Your task to perform on an android device: turn on showing notifications on the lock screen Image 0: 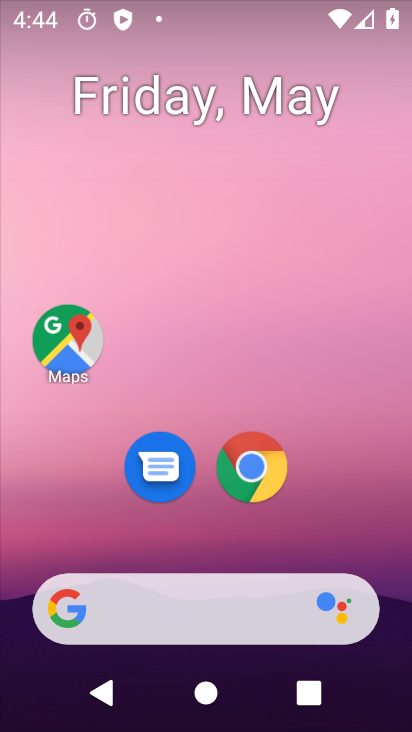
Step 0: drag from (361, 491) to (285, 14)
Your task to perform on an android device: turn on showing notifications on the lock screen Image 1: 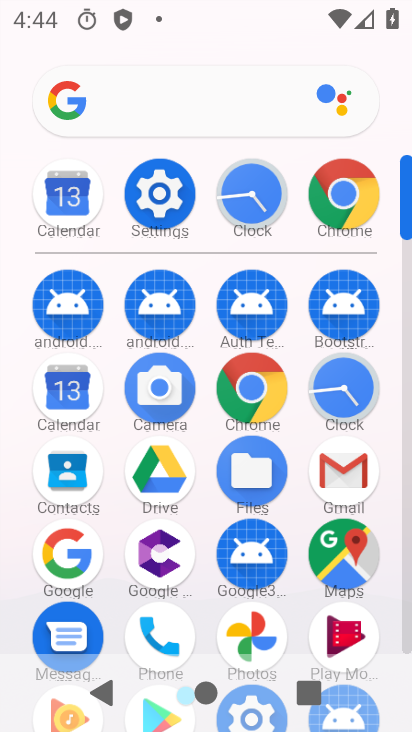
Step 1: click (168, 202)
Your task to perform on an android device: turn on showing notifications on the lock screen Image 2: 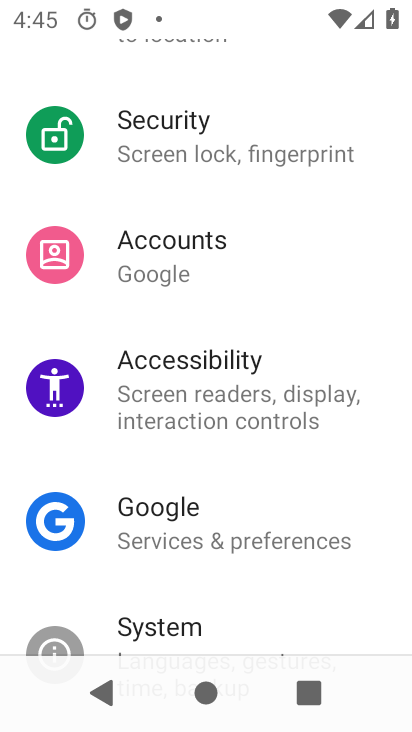
Step 2: drag from (310, 520) to (269, 597)
Your task to perform on an android device: turn on showing notifications on the lock screen Image 3: 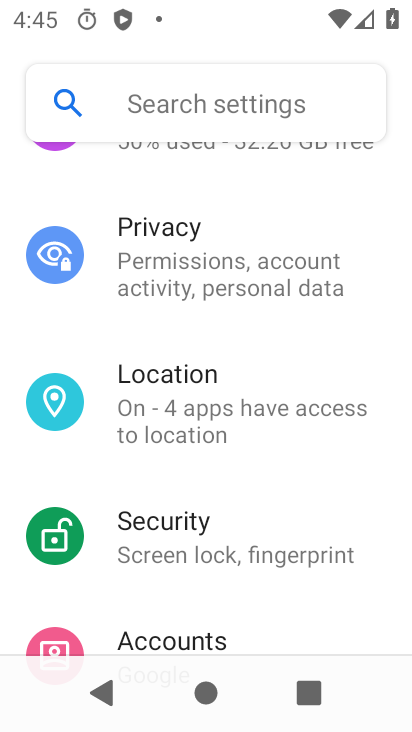
Step 3: drag from (225, 293) to (312, 631)
Your task to perform on an android device: turn on showing notifications on the lock screen Image 4: 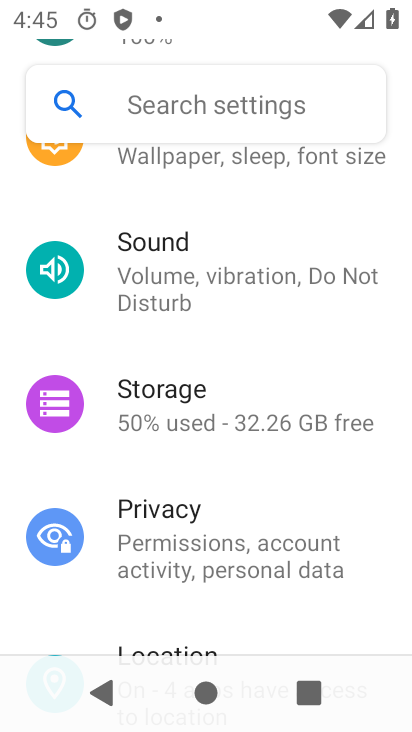
Step 4: drag from (218, 167) to (324, 567)
Your task to perform on an android device: turn on showing notifications on the lock screen Image 5: 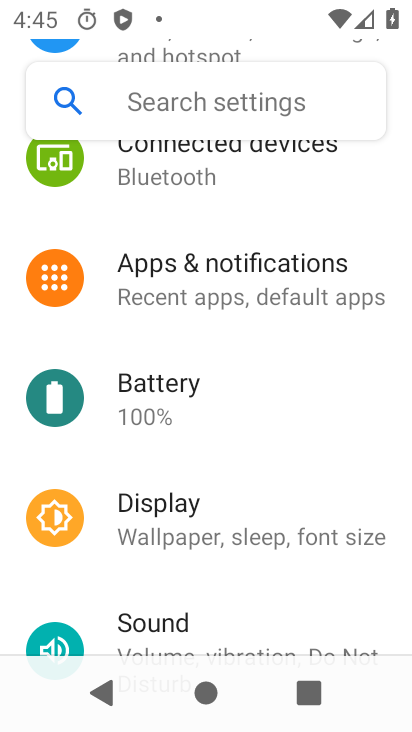
Step 5: click (224, 264)
Your task to perform on an android device: turn on showing notifications on the lock screen Image 6: 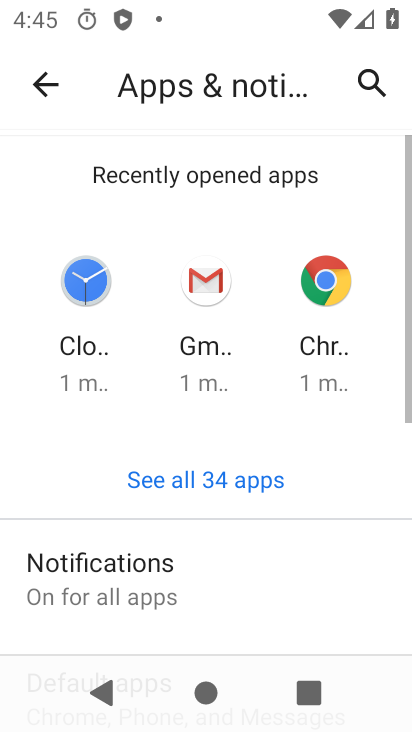
Step 6: drag from (236, 574) to (230, 98)
Your task to perform on an android device: turn on showing notifications on the lock screen Image 7: 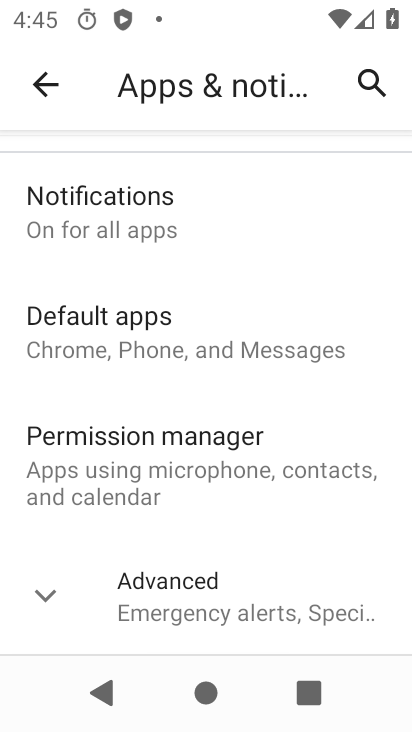
Step 7: click (139, 221)
Your task to perform on an android device: turn on showing notifications on the lock screen Image 8: 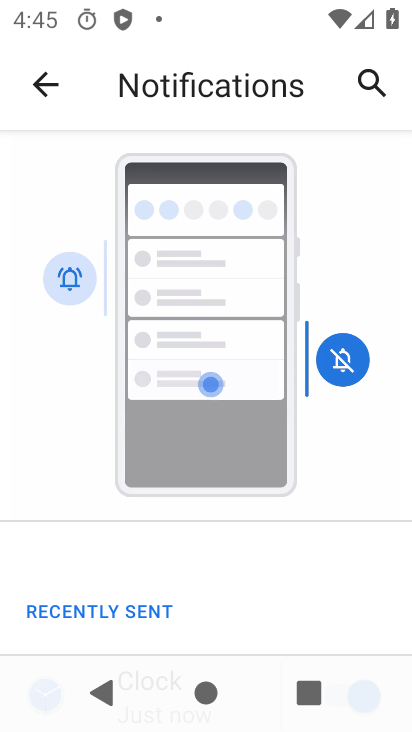
Step 8: drag from (312, 587) to (290, 0)
Your task to perform on an android device: turn on showing notifications on the lock screen Image 9: 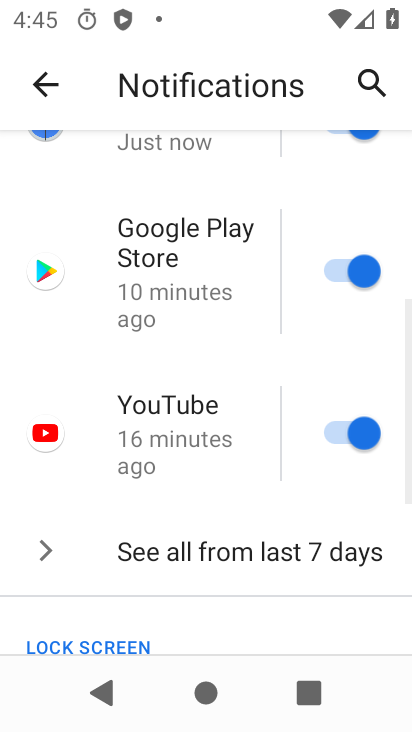
Step 9: drag from (277, 618) to (45, 371)
Your task to perform on an android device: turn on showing notifications on the lock screen Image 10: 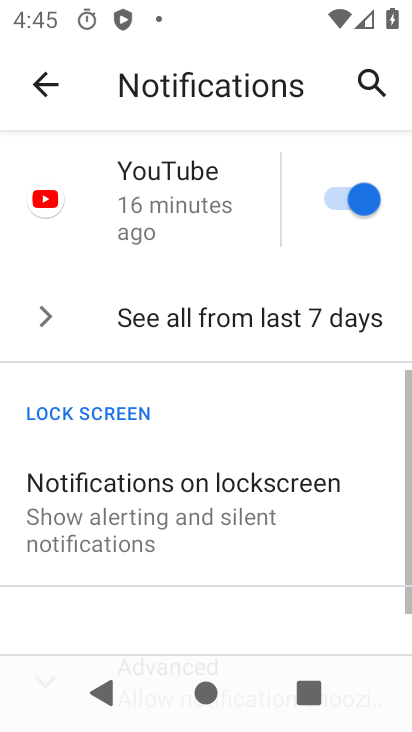
Step 10: drag from (186, 485) to (218, 135)
Your task to perform on an android device: turn on showing notifications on the lock screen Image 11: 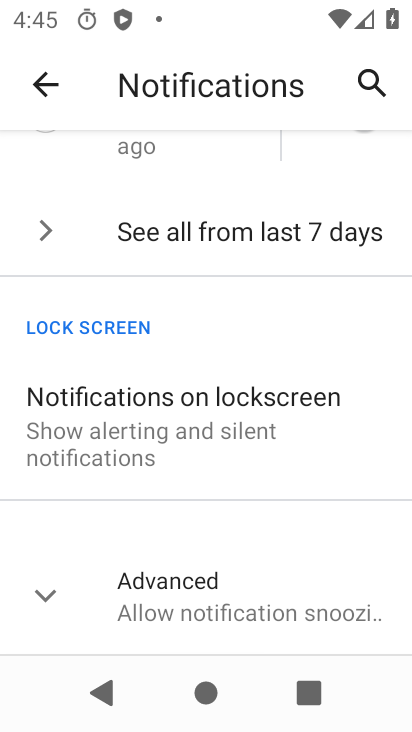
Step 11: click (201, 412)
Your task to perform on an android device: turn on showing notifications on the lock screen Image 12: 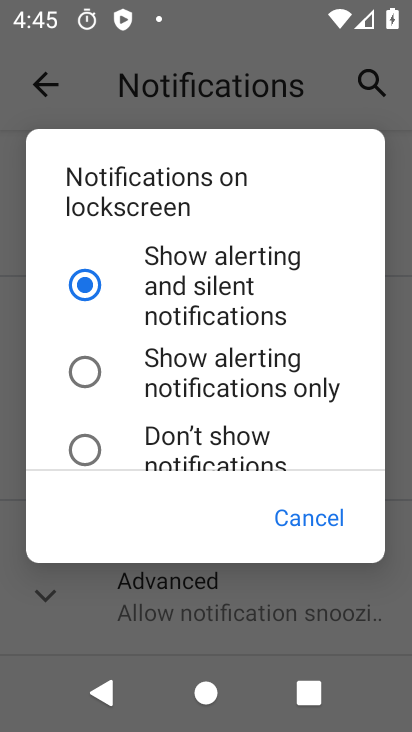
Step 12: click (212, 389)
Your task to perform on an android device: turn on showing notifications on the lock screen Image 13: 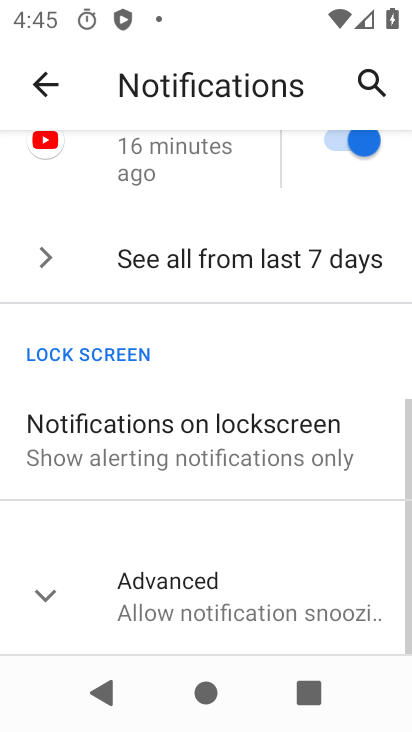
Step 13: task complete